Your task to perform on an android device: open app "Microsoft Authenticator" Image 0: 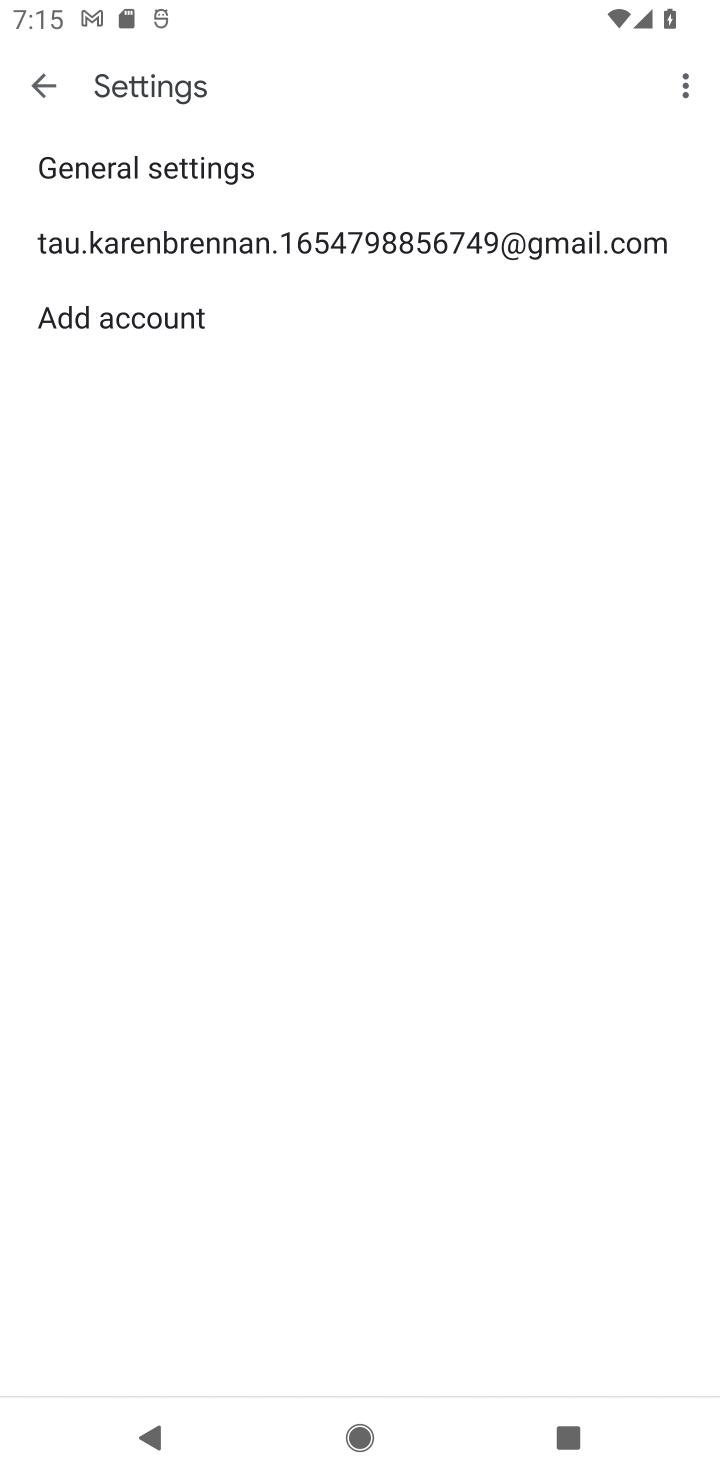
Step 0: press home button
Your task to perform on an android device: open app "Microsoft Authenticator" Image 1: 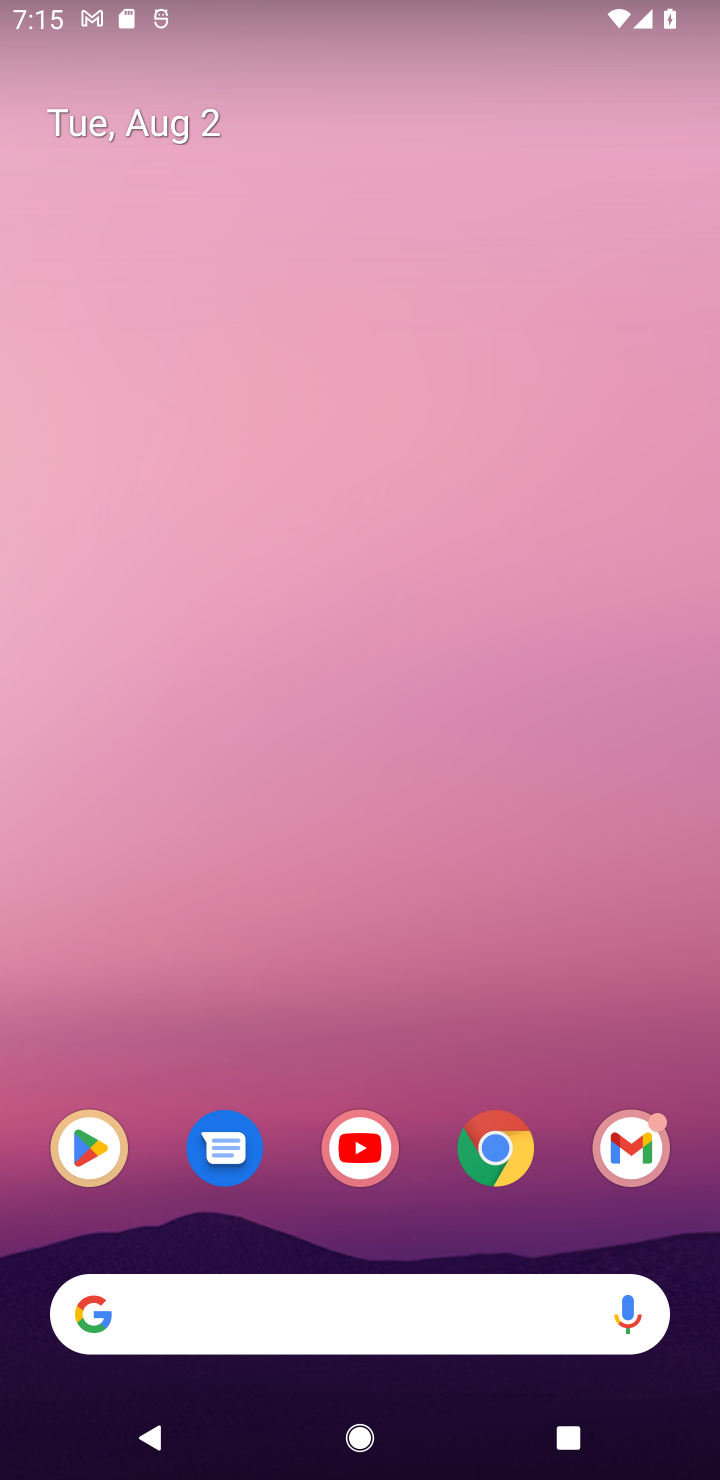
Step 1: drag from (690, 1250) to (327, 46)
Your task to perform on an android device: open app "Microsoft Authenticator" Image 2: 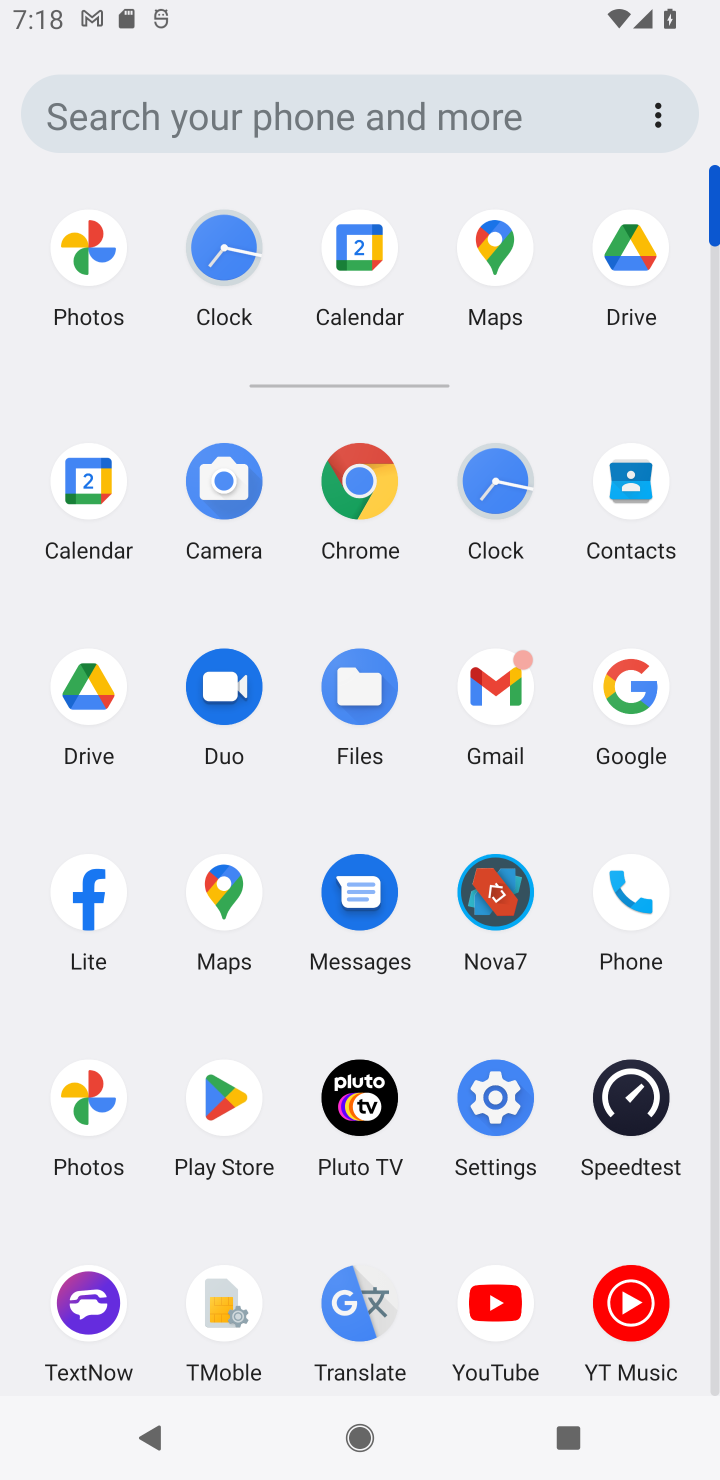
Step 2: click (214, 1116)
Your task to perform on an android device: open app "Microsoft Authenticator" Image 3: 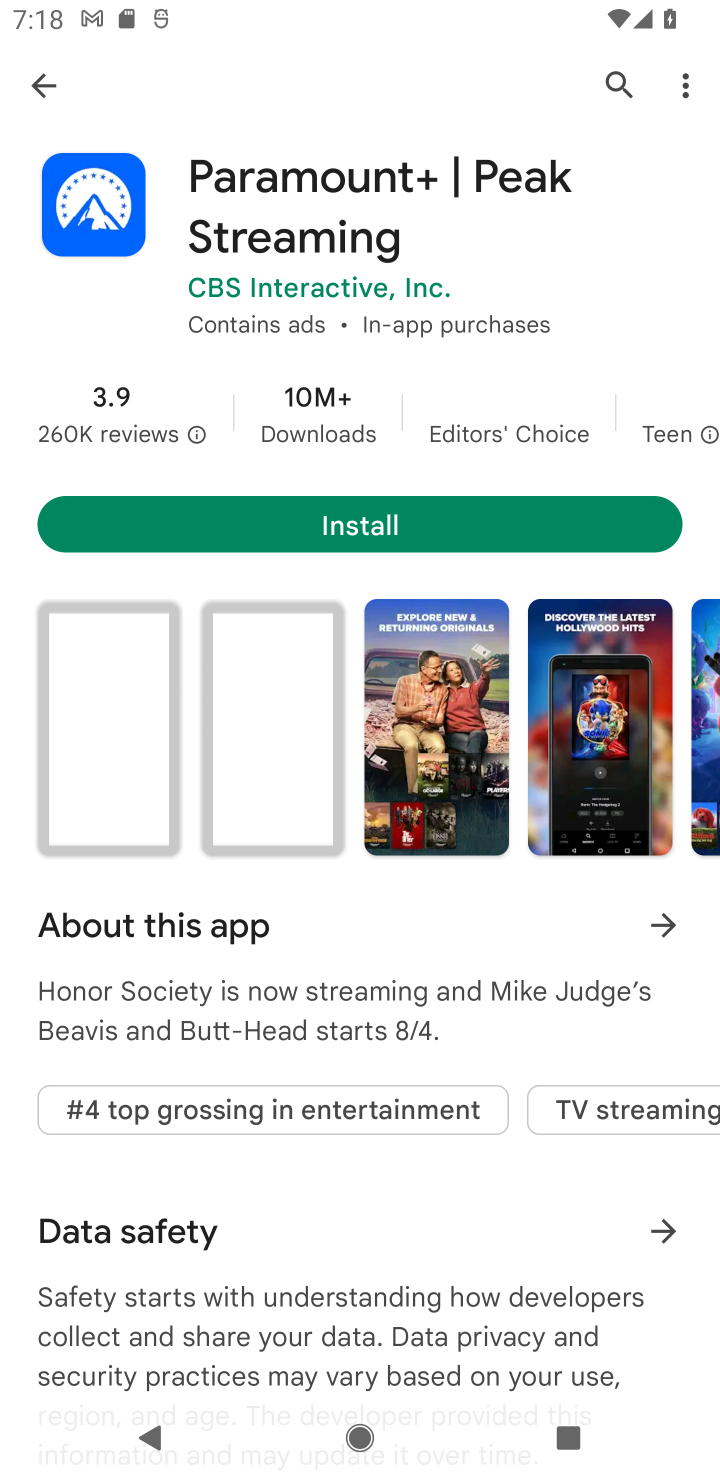
Step 3: press back button
Your task to perform on an android device: open app "Microsoft Authenticator" Image 4: 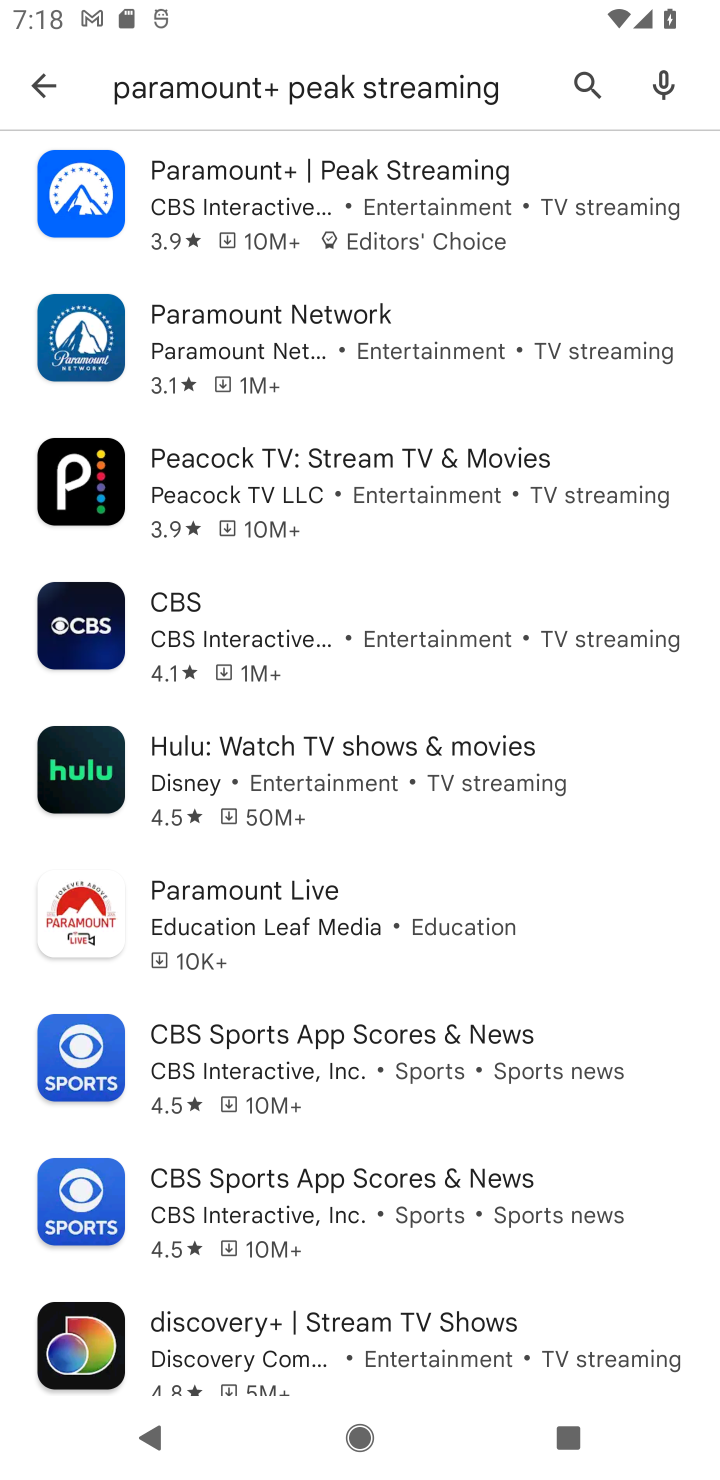
Step 4: press back button
Your task to perform on an android device: open app "Microsoft Authenticator" Image 5: 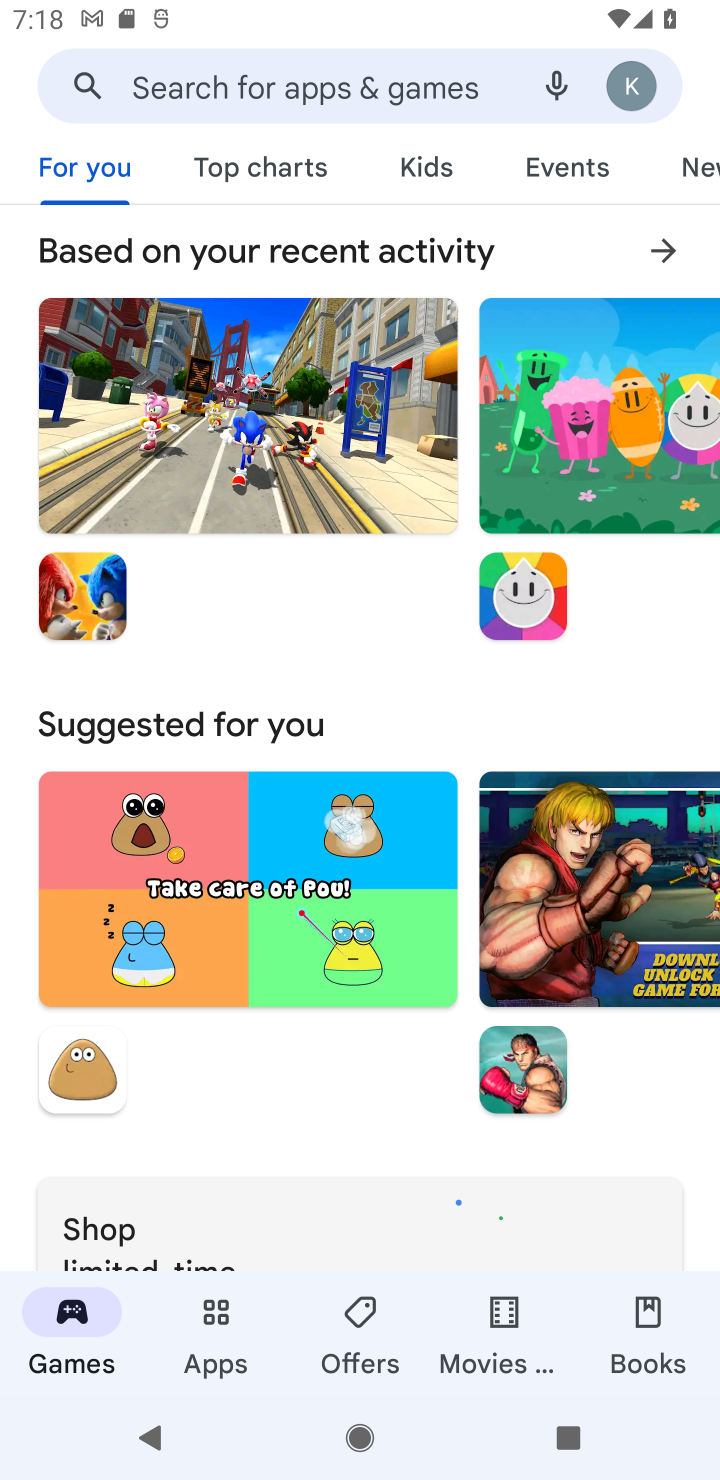
Step 5: click (153, 79)
Your task to perform on an android device: open app "Microsoft Authenticator" Image 6: 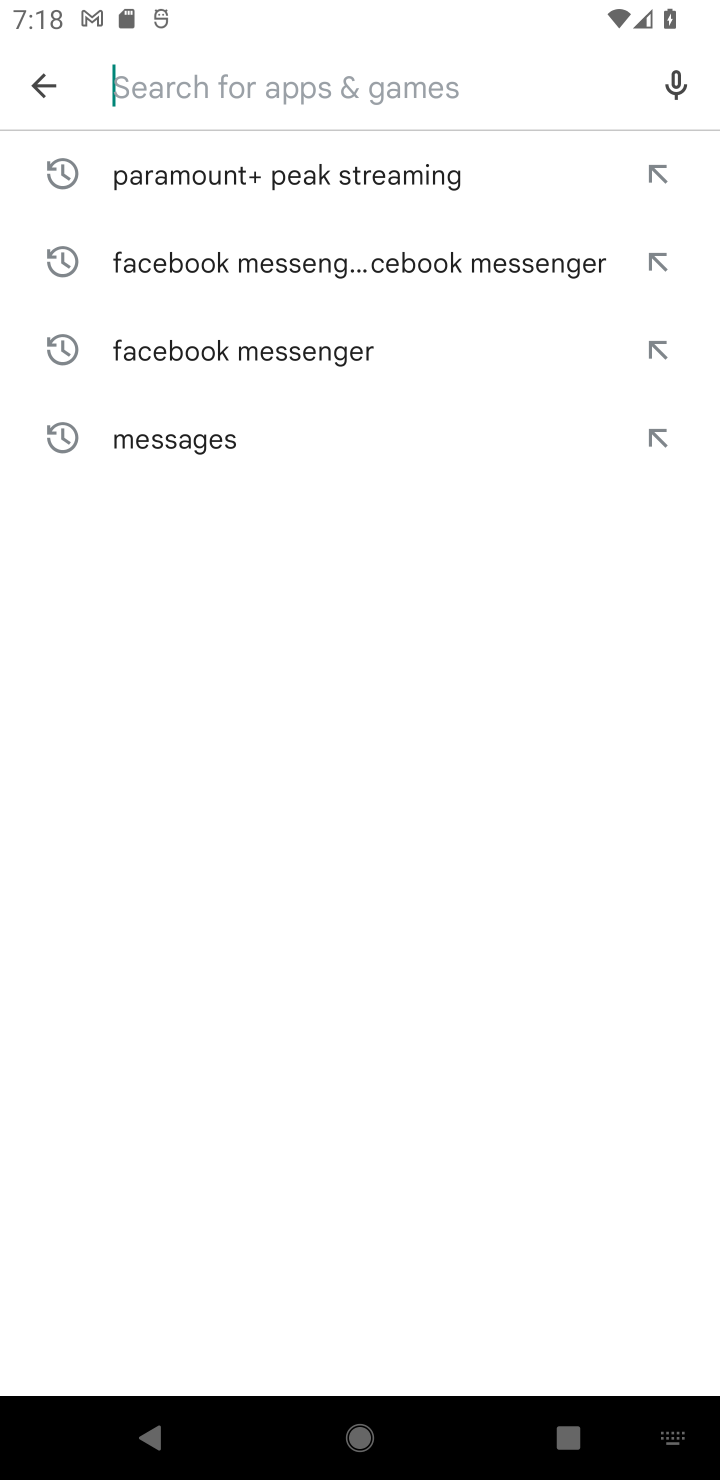
Step 6: type "Microsoft Authenticator"
Your task to perform on an android device: open app "Microsoft Authenticator" Image 7: 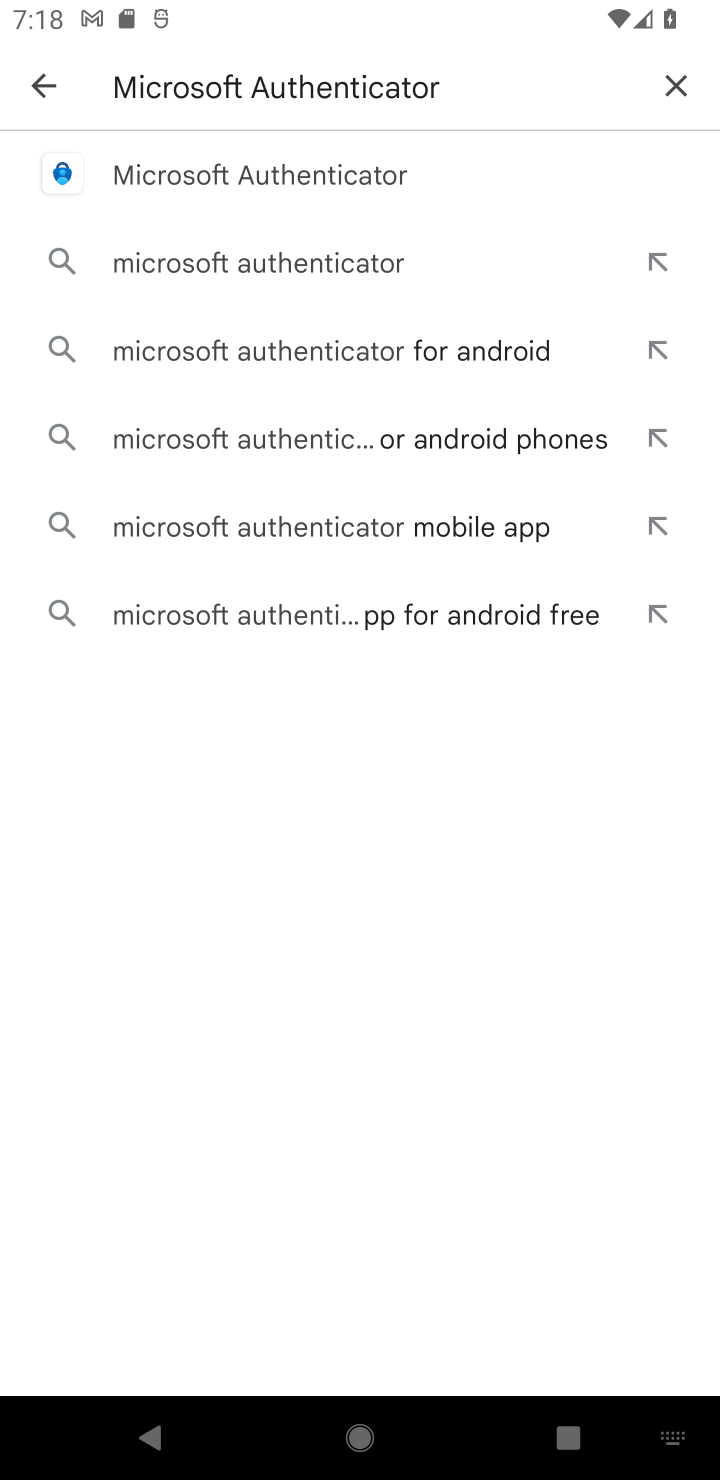
Step 7: click (352, 166)
Your task to perform on an android device: open app "Microsoft Authenticator" Image 8: 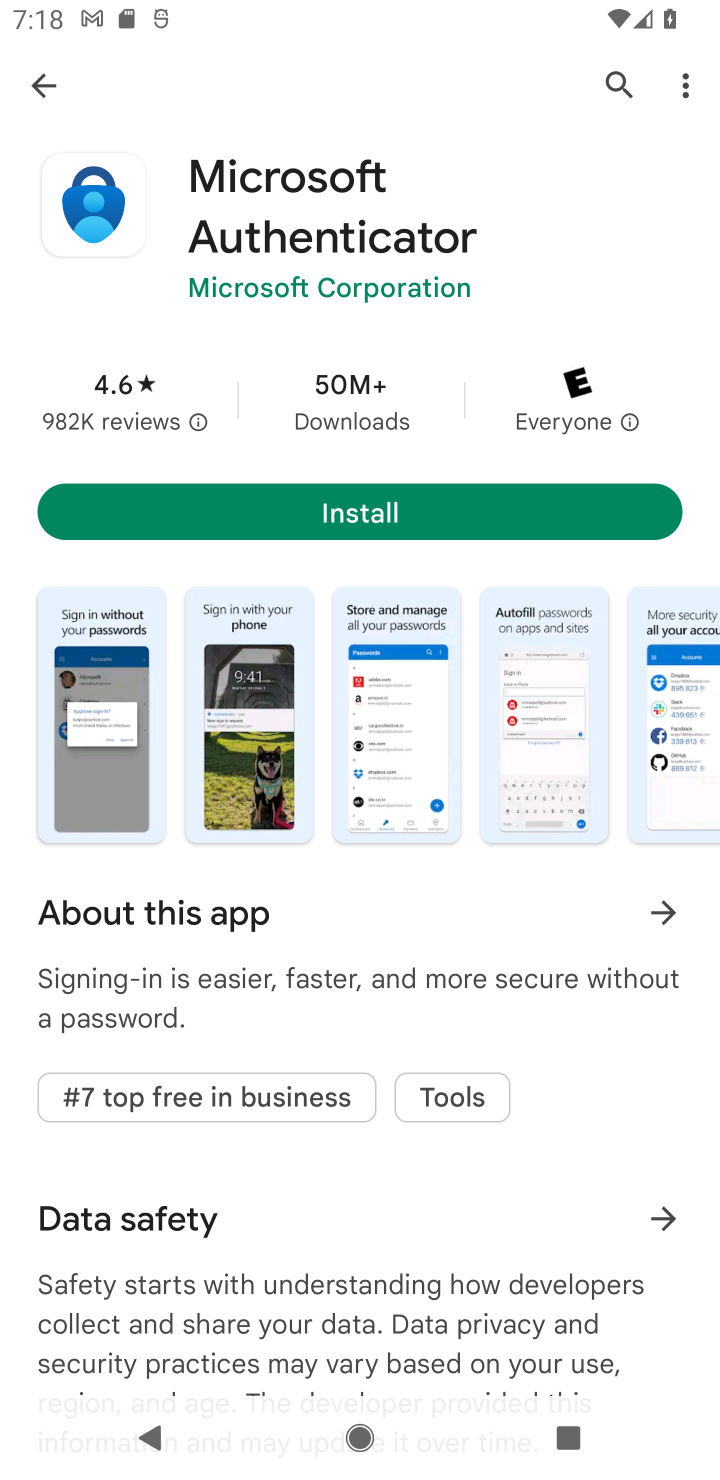
Step 8: task complete